Your task to perform on an android device: turn smart compose on in the gmail app Image 0: 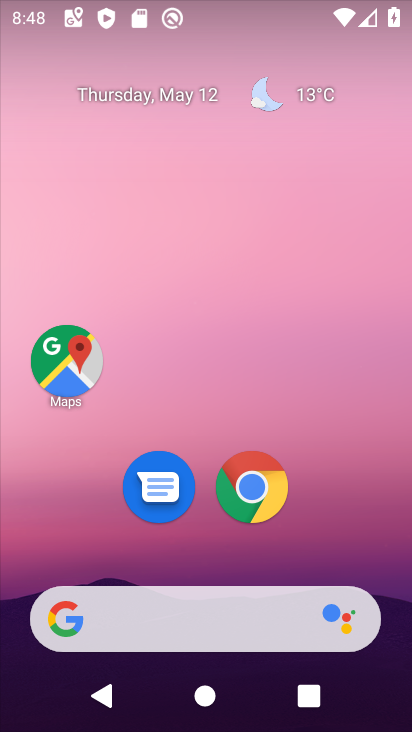
Step 0: drag from (330, 553) to (346, 34)
Your task to perform on an android device: turn smart compose on in the gmail app Image 1: 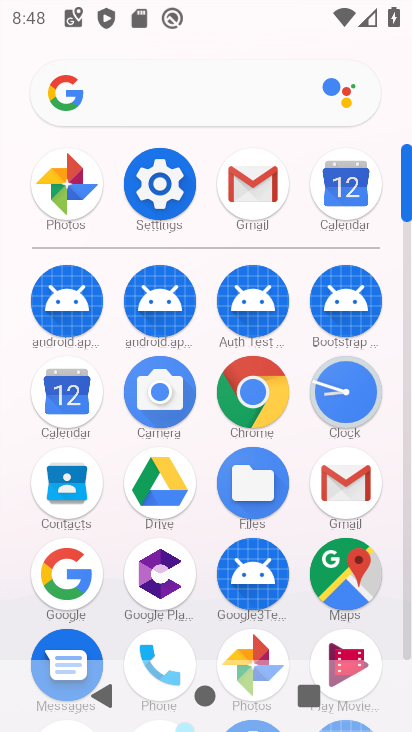
Step 1: click (247, 196)
Your task to perform on an android device: turn smart compose on in the gmail app Image 2: 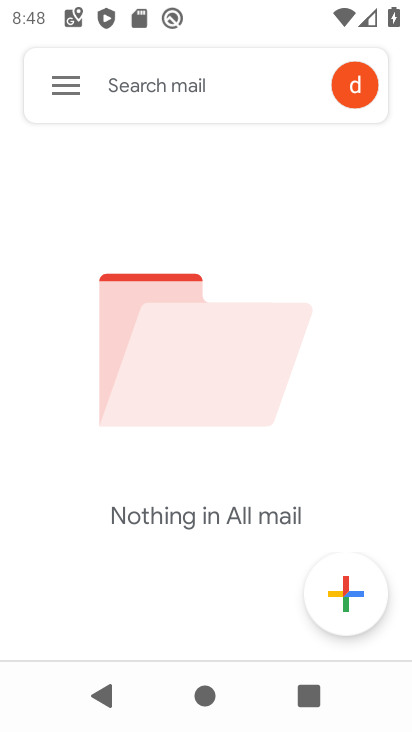
Step 2: click (64, 89)
Your task to perform on an android device: turn smart compose on in the gmail app Image 3: 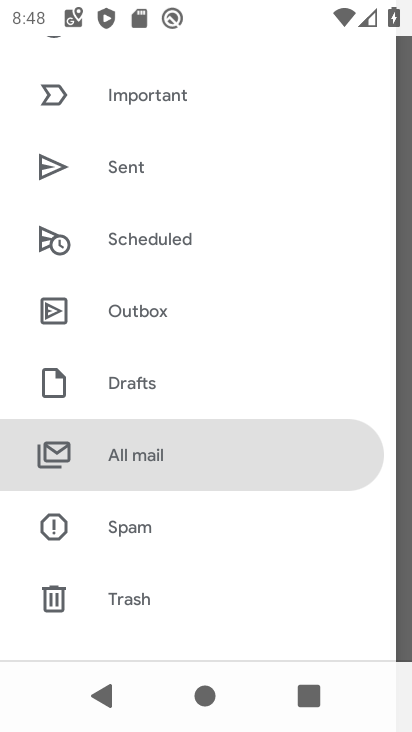
Step 3: drag from (224, 501) to (232, 80)
Your task to perform on an android device: turn smart compose on in the gmail app Image 4: 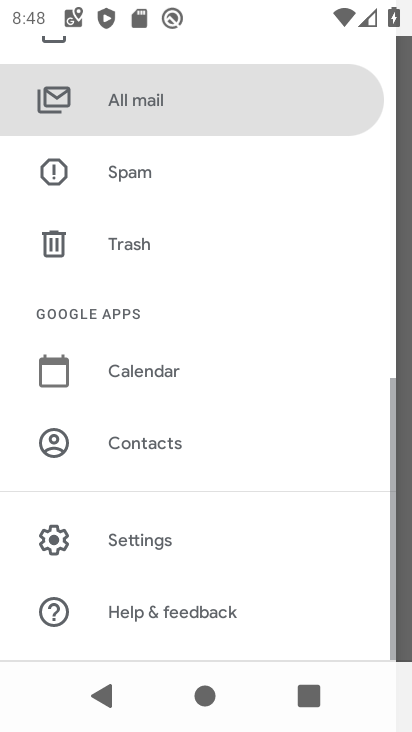
Step 4: click (126, 543)
Your task to perform on an android device: turn smart compose on in the gmail app Image 5: 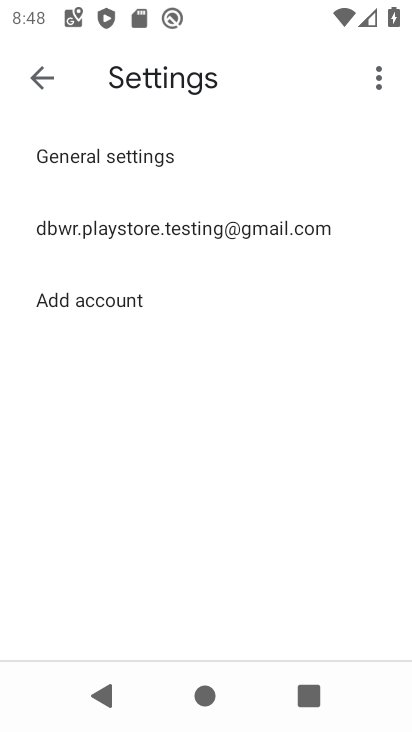
Step 5: click (80, 229)
Your task to perform on an android device: turn smart compose on in the gmail app Image 6: 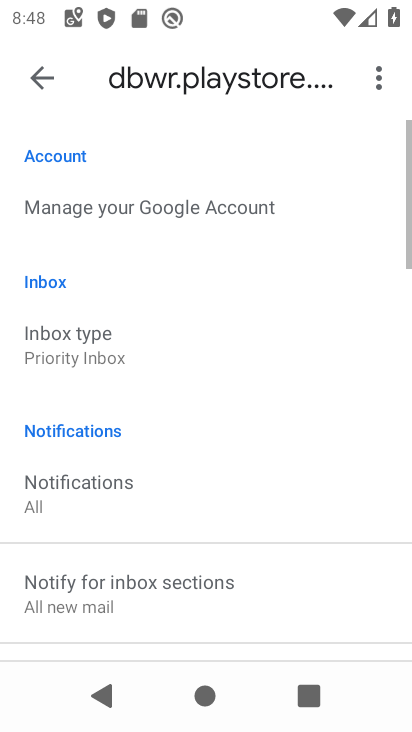
Step 6: task complete